Your task to perform on an android device: Open CNN.com Image 0: 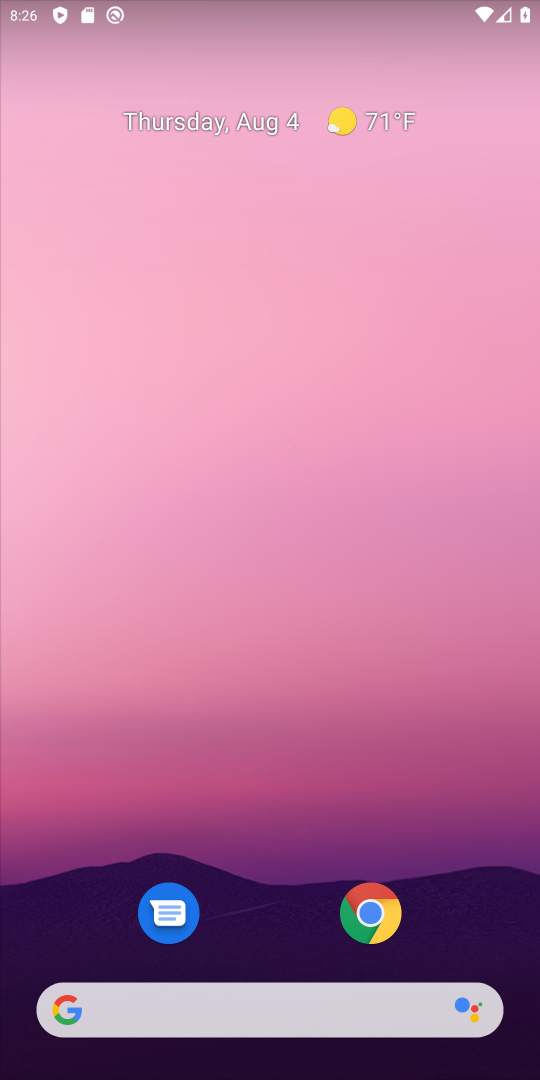
Step 0: click (264, 24)
Your task to perform on an android device: Open CNN.com Image 1: 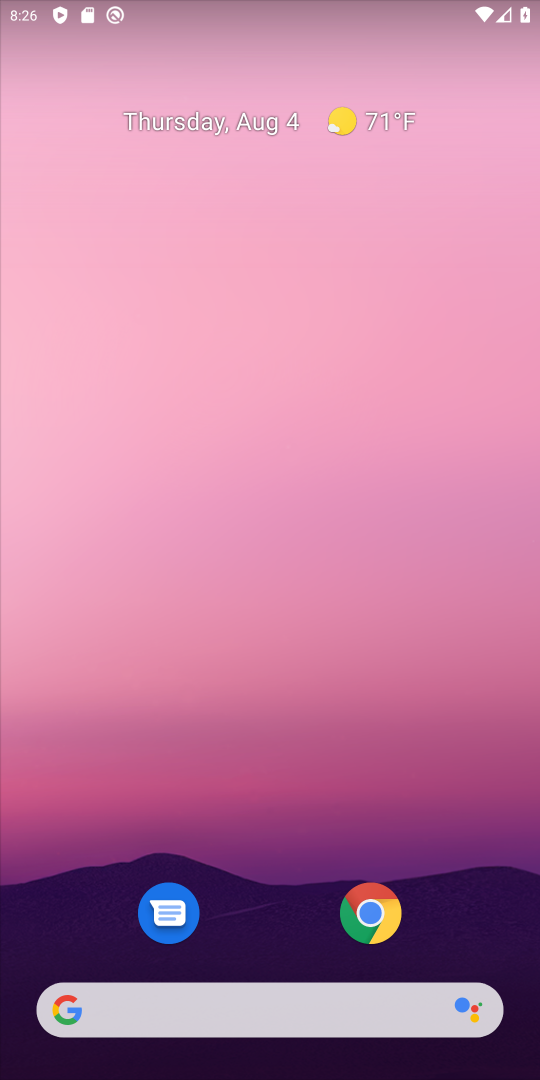
Step 1: drag from (252, 826) to (279, 141)
Your task to perform on an android device: Open CNN.com Image 2: 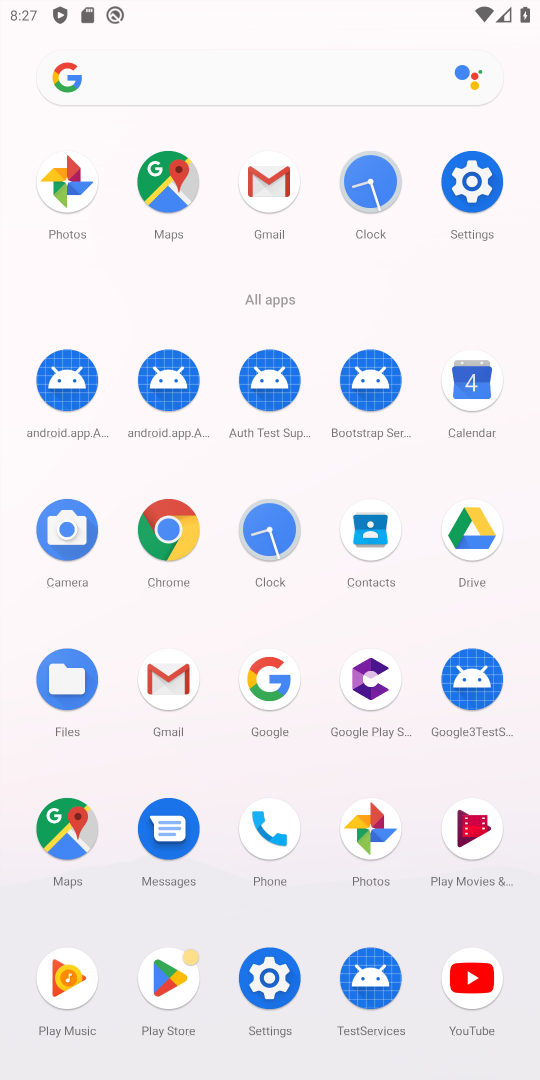
Step 2: click (159, 527)
Your task to perform on an android device: Open CNN.com Image 3: 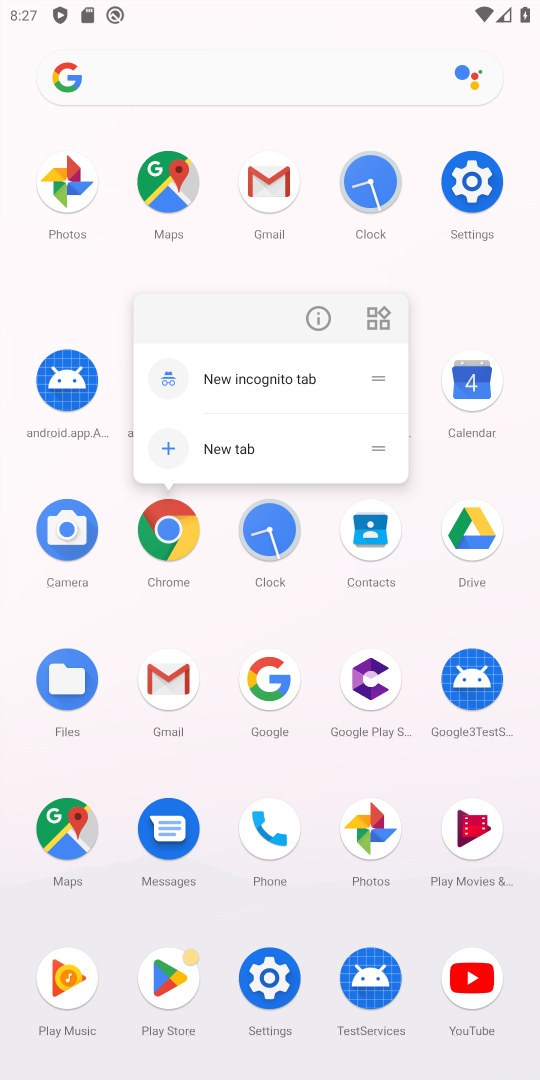
Step 3: click (316, 316)
Your task to perform on an android device: Open CNN.com Image 4: 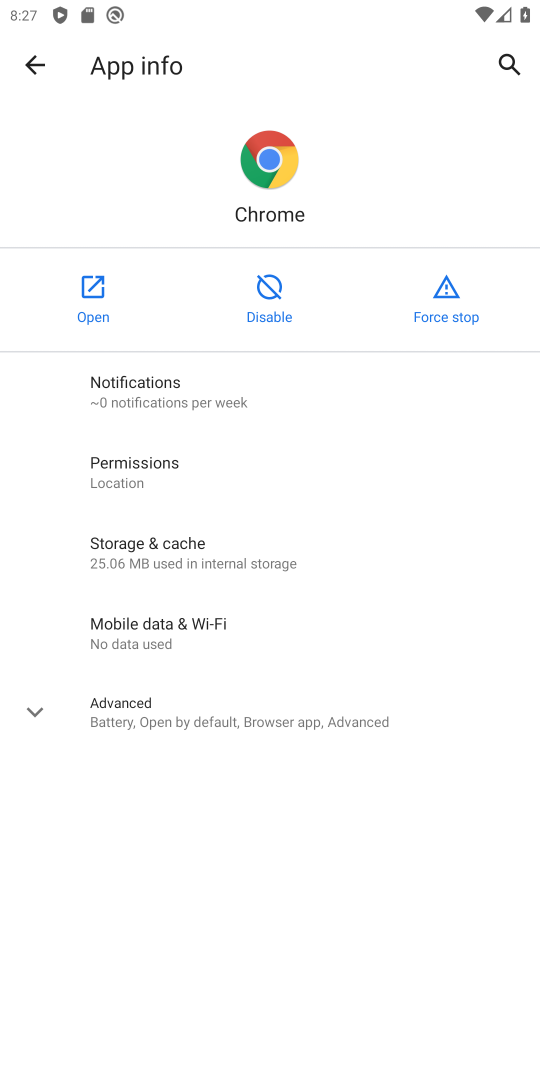
Step 4: click (127, 278)
Your task to perform on an android device: Open CNN.com Image 5: 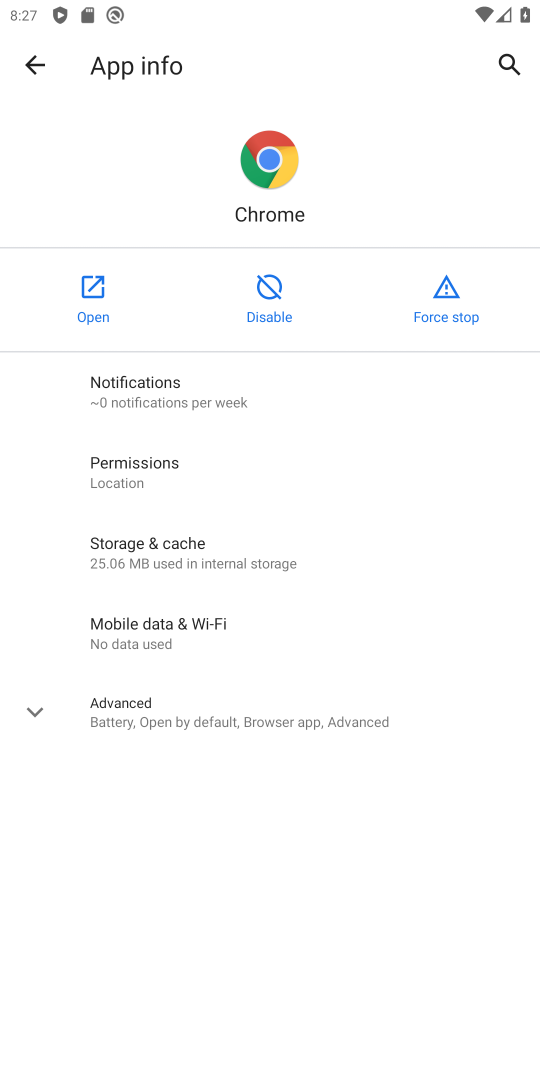
Step 5: click (88, 289)
Your task to perform on an android device: Open CNN.com Image 6: 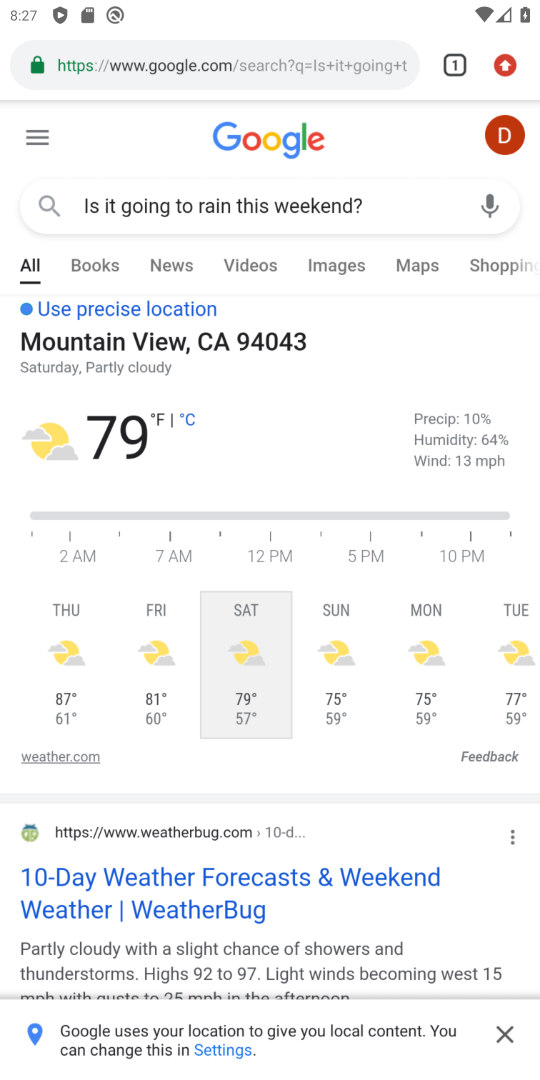
Step 6: drag from (204, 852) to (343, 1064)
Your task to perform on an android device: Open CNN.com Image 7: 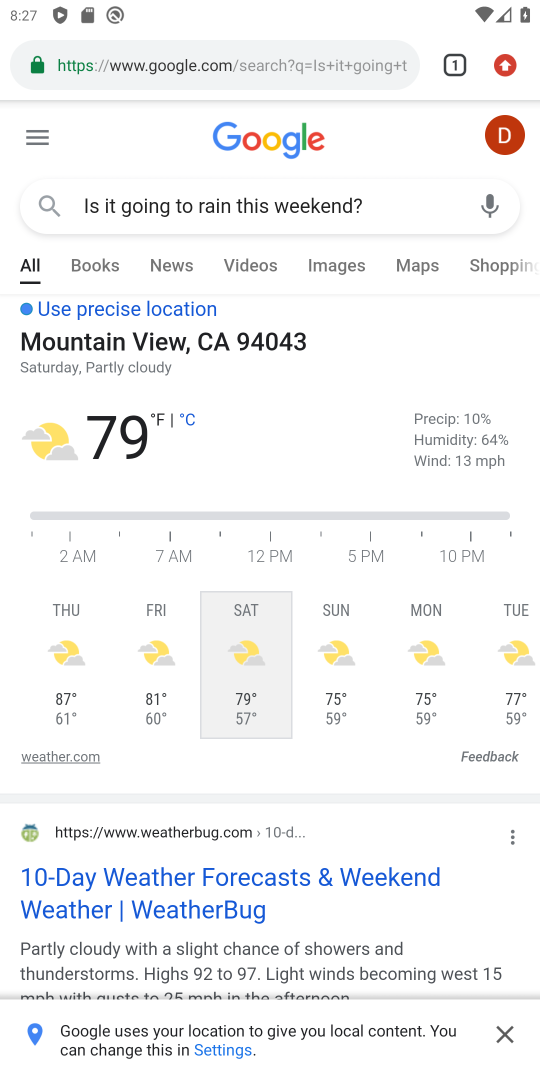
Step 7: click (185, 64)
Your task to perform on an android device: Open CNN.com Image 8: 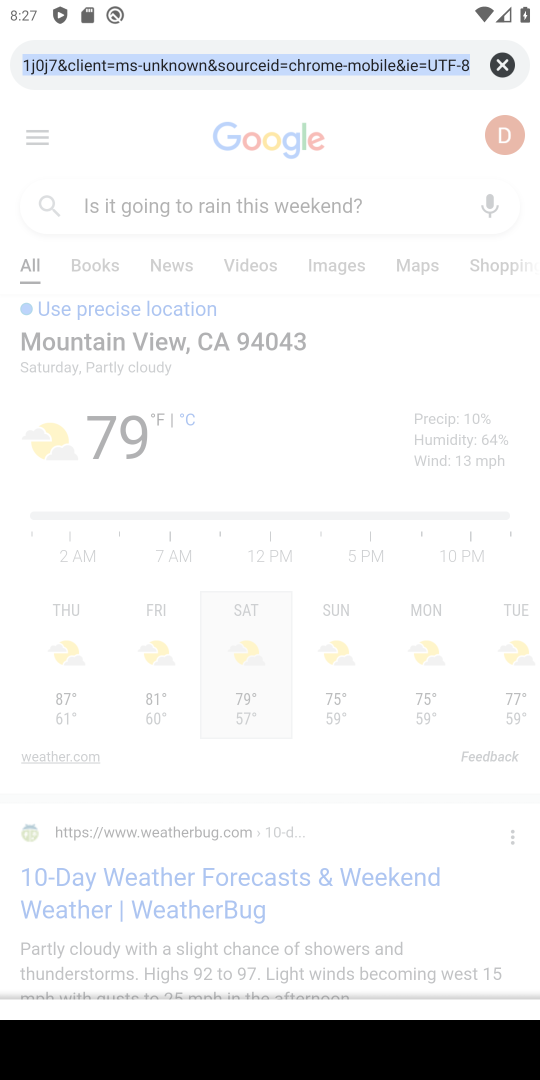
Step 8: click (500, 60)
Your task to perform on an android device: Open CNN.com Image 9: 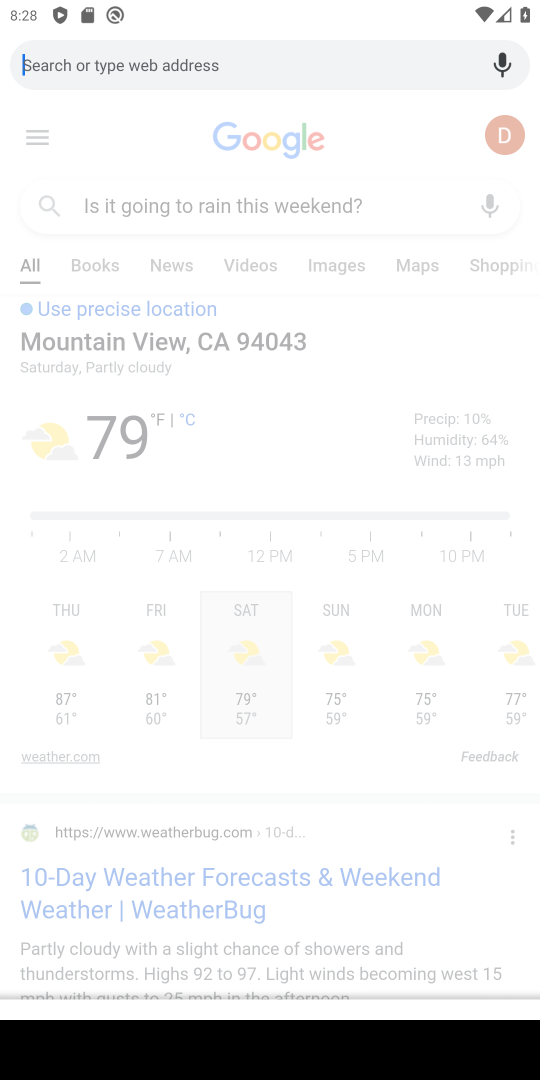
Step 9: type "CNN.com"
Your task to perform on an android device: Open CNN.com Image 10: 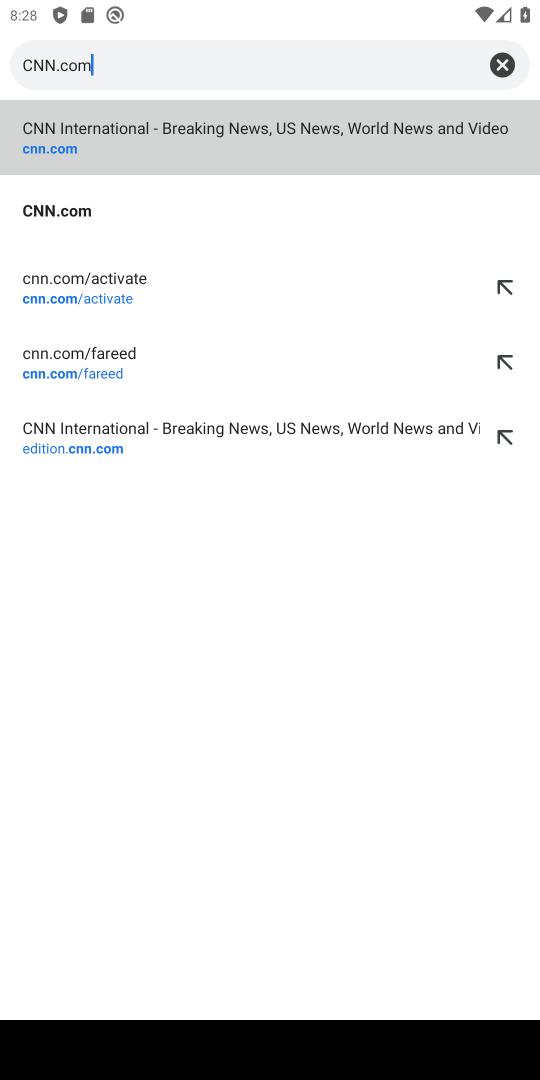
Step 10: type ""
Your task to perform on an android device: Open CNN.com Image 11: 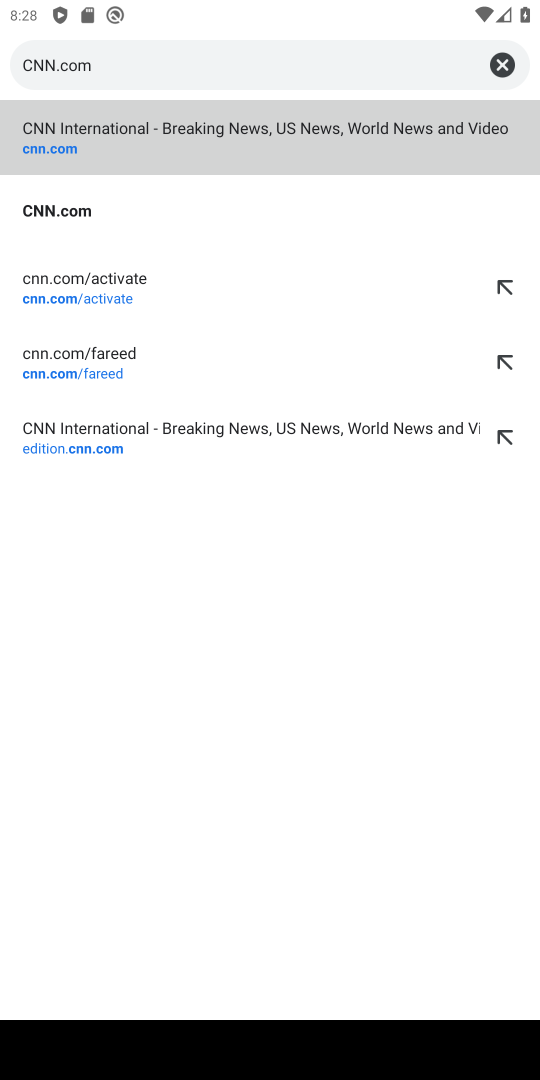
Step 11: click (48, 124)
Your task to perform on an android device: Open CNN.com Image 12: 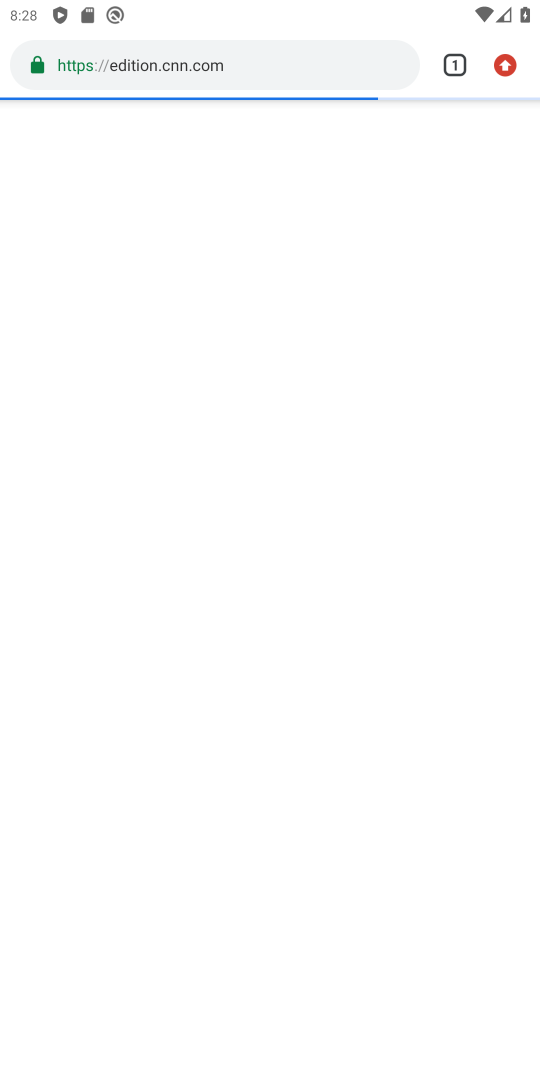
Step 12: task complete